Your task to perform on an android device: turn on improve location accuracy Image 0: 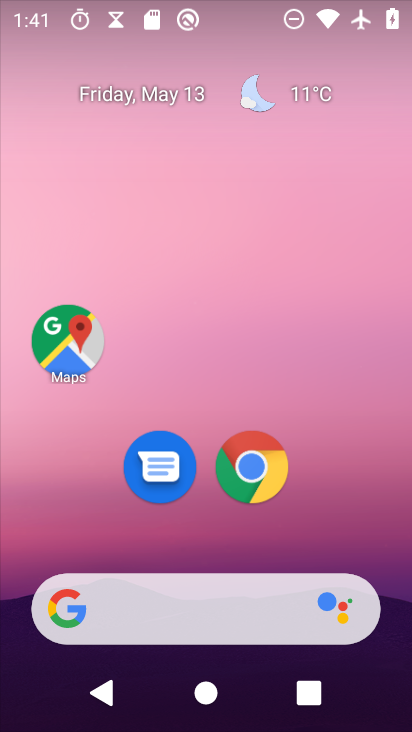
Step 0: drag from (338, 483) to (235, 68)
Your task to perform on an android device: turn on improve location accuracy Image 1: 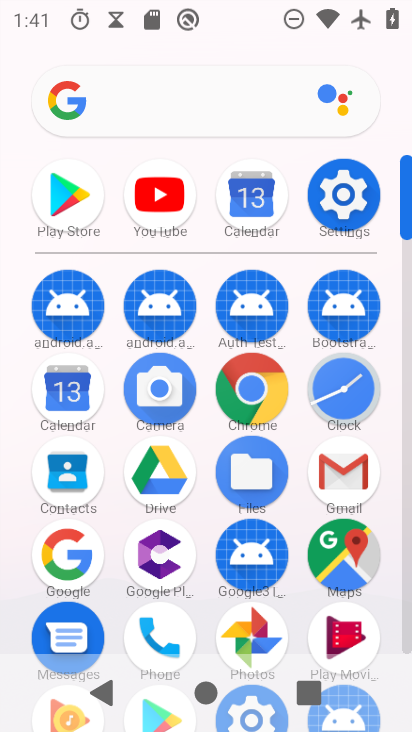
Step 1: click (344, 196)
Your task to perform on an android device: turn on improve location accuracy Image 2: 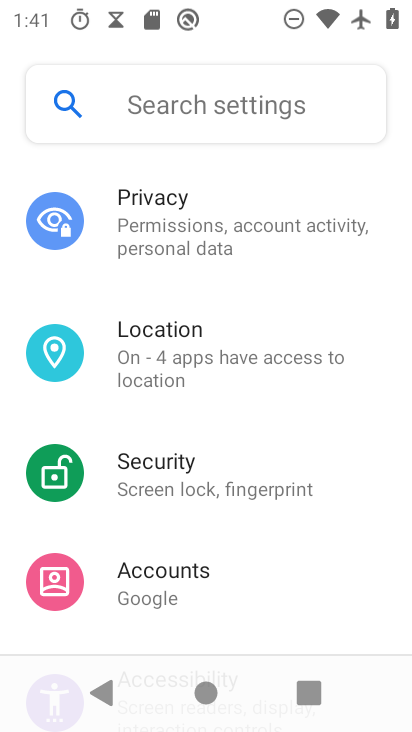
Step 2: click (220, 349)
Your task to perform on an android device: turn on improve location accuracy Image 3: 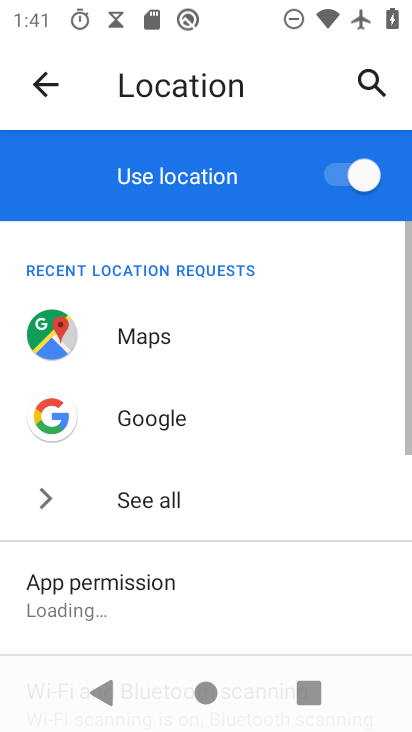
Step 3: drag from (245, 566) to (216, 146)
Your task to perform on an android device: turn on improve location accuracy Image 4: 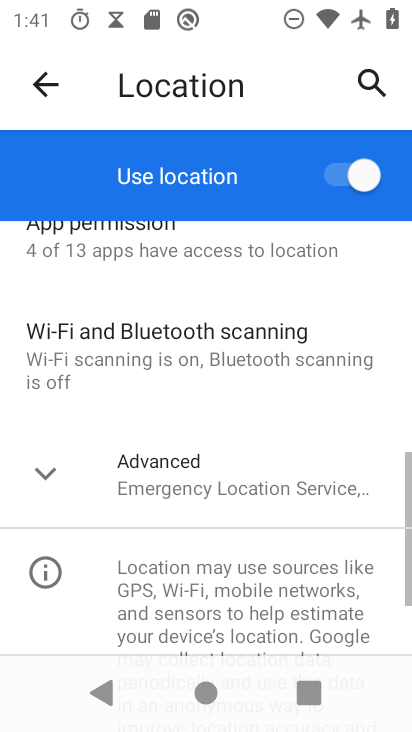
Step 4: click (108, 445)
Your task to perform on an android device: turn on improve location accuracy Image 5: 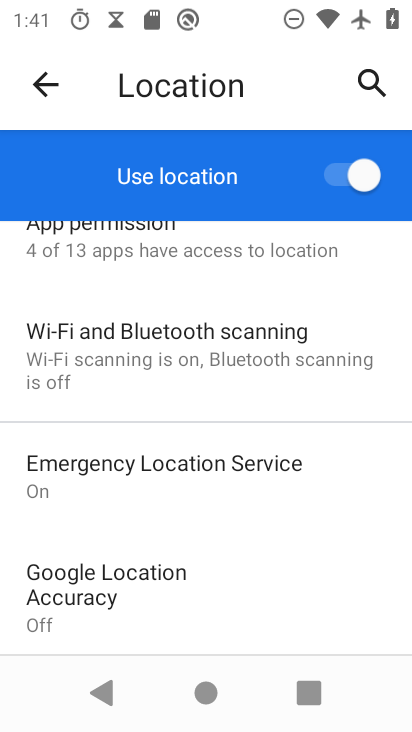
Step 5: drag from (216, 556) to (175, 353)
Your task to perform on an android device: turn on improve location accuracy Image 6: 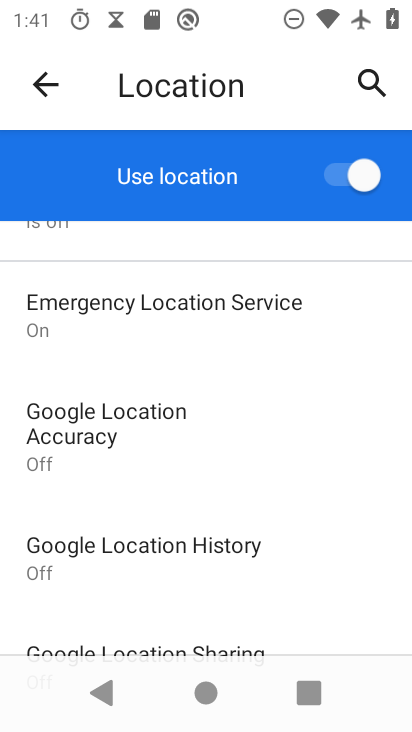
Step 6: click (151, 431)
Your task to perform on an android device: turn on improve location accuracy Image 7: 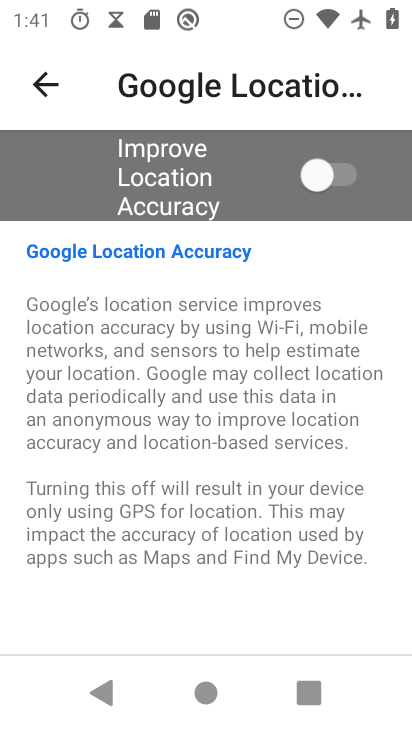
Step 7: click (330, 184)
Your task to perform on an android device: turn on improve location accuracy Image 8: 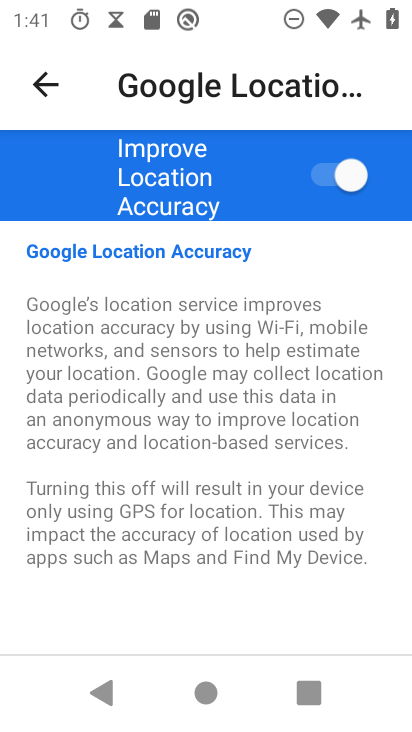
Step 8: task complete